Your task to perform on an android device: turn off notifications in google photos Image 0: 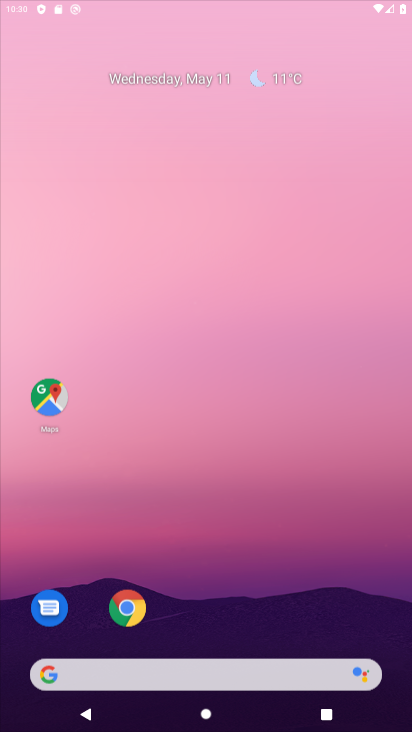
Step 0: drag from (195, 417) to (267, 123)
Your task to perform on an android device: turn off notifications in google photos Image 1: 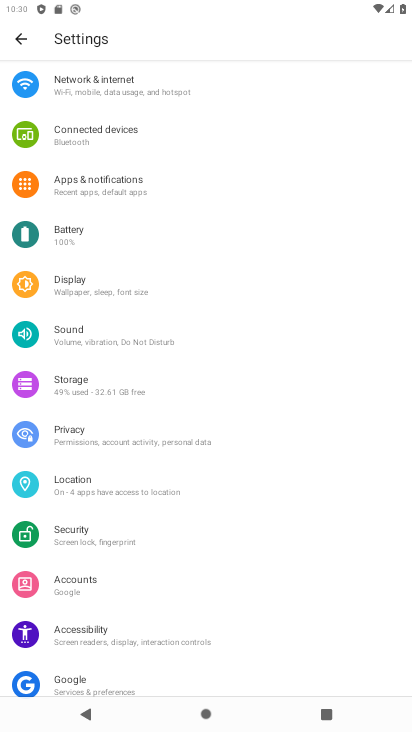
Step 1: press home button
Your task to perform on an android device: turn off notifications in google photos Image 2: 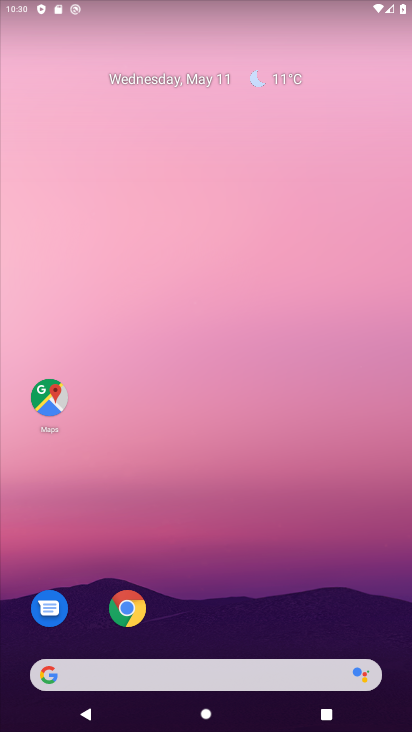
Step 2: drag from (197, 605) to (270, 107)
Your task to perform on an android device: turn off notifications in google photos Image 3: 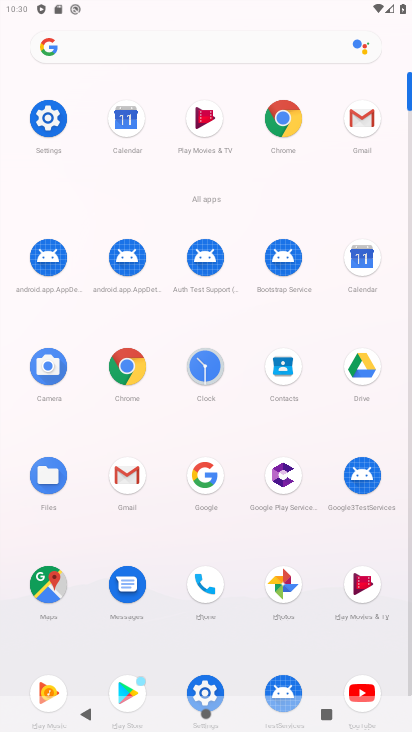
Step 3: drag from (76, 526) to (151, 180)
Your task to perform on an android device: turn off notifications in google photos Image 4: 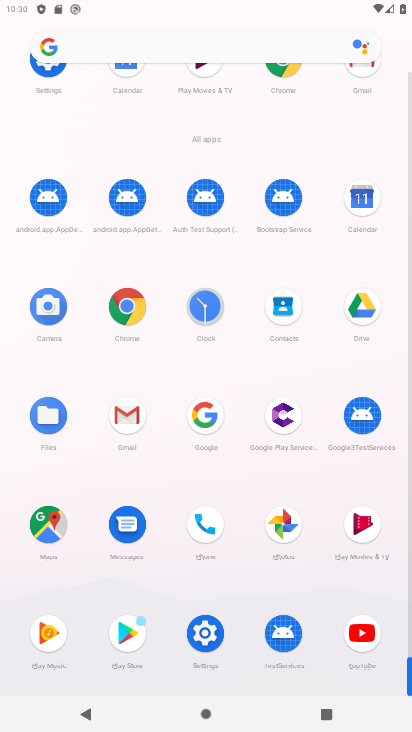
Step 4: click (285, 525)
Your task to perform on an android device: turn off notifications in google photos Image 5: 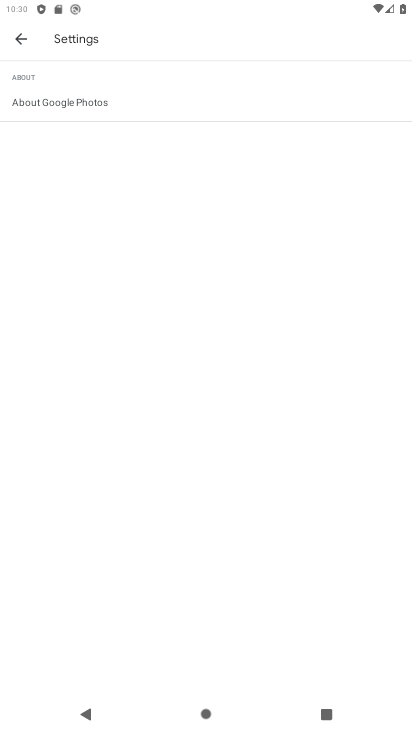
Step 5: click (84, 710)
Your task to perform on an android device: turn off notifications in google photos Image 6: 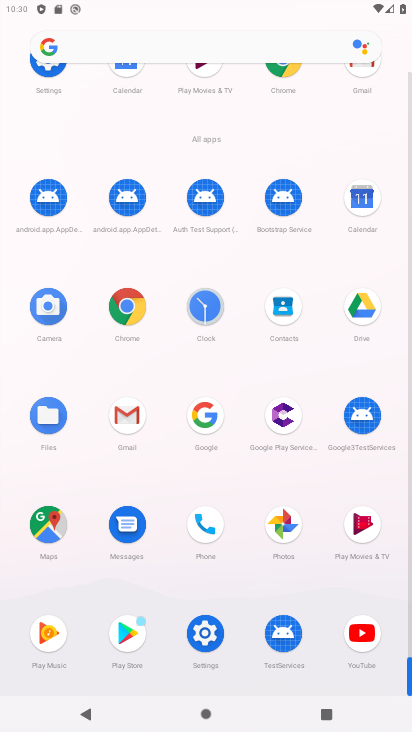
Step 6: click (277, 533)
Your task to perform on an android device: turn off notifications in google photos Image 7: 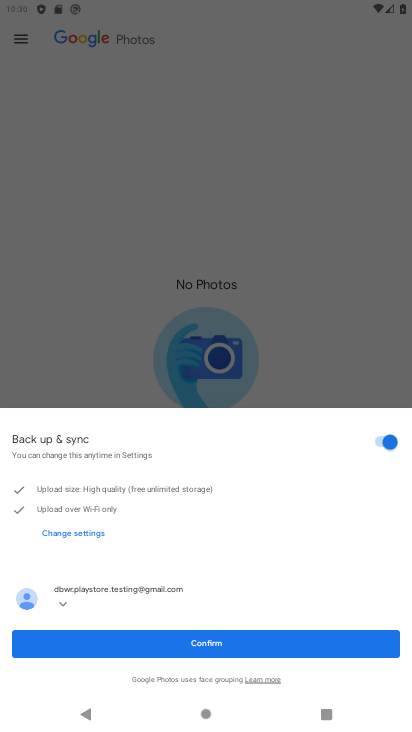
Step 7: click (147, 655)
Your task to perform on an android device: turn off notifications in google photos Image 8: 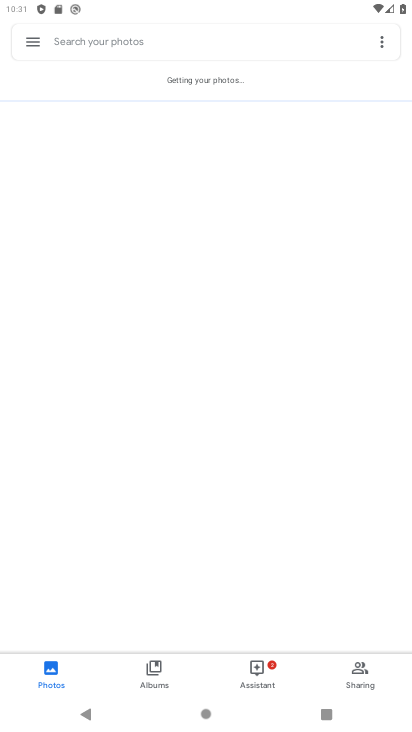
Step 8: click (38, 31)
Your task to perform on an android device: turn off notifications in google photos Image 9: 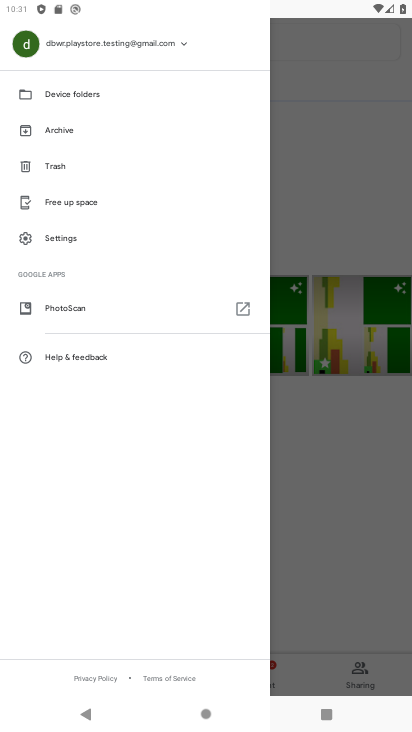
Step 9: click (78, 246)
Your task to perform on an android device: turn off notifications in google photos Image 10: 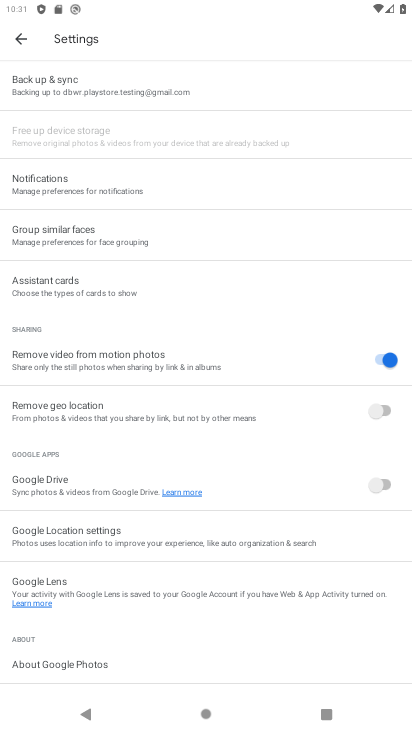
Step 10: click (114, 187)
Your task to perform on an android device: turn off notifications in google photos Image 11: 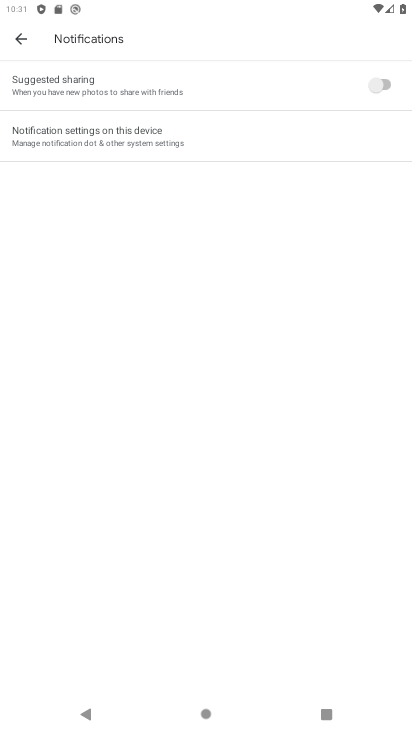
Step 11: click (263, 137)
Your task to perform on an android device: turn off notifications in google photos Image 12: 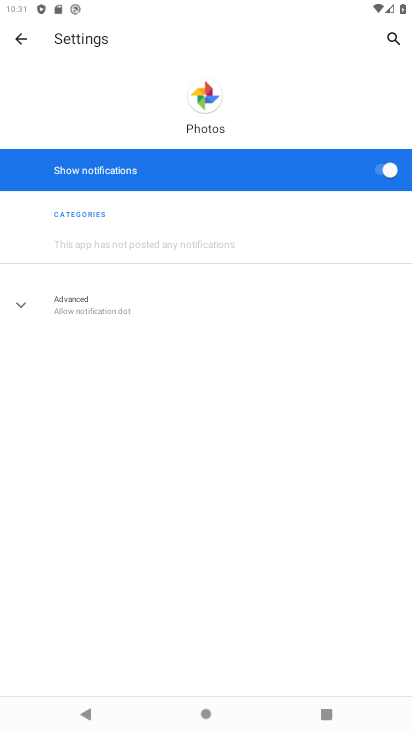
Step 12: click (386, 170)
Your task to perform on an android device: turn off notifications in google photos Image 13: 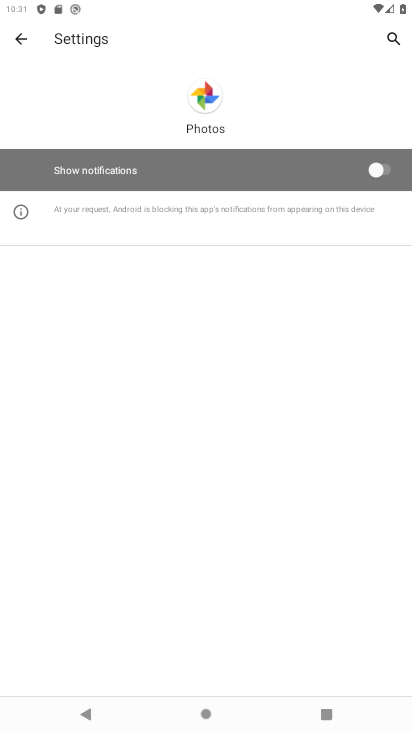
Step 13: task complete